Your task to perform on an android device: Go to Reddit.com Image 0: 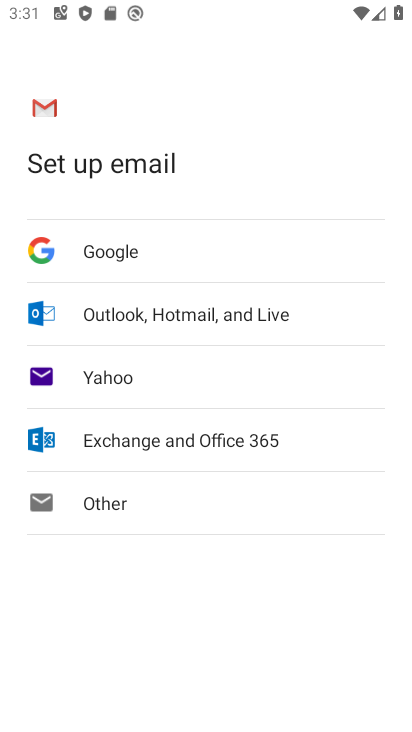
Step 0: press home button
Your task to perform on an android device: Go to Reddit.com Image 1: 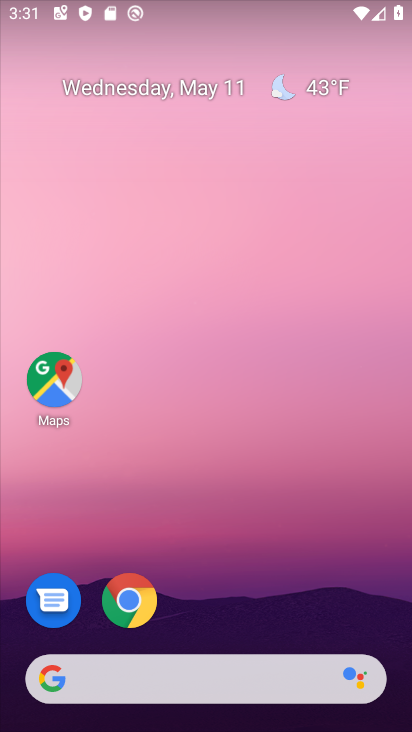
Step 1: click (143, 603)
Your task to perform on an android device: Go to Reddit.com Image 2: 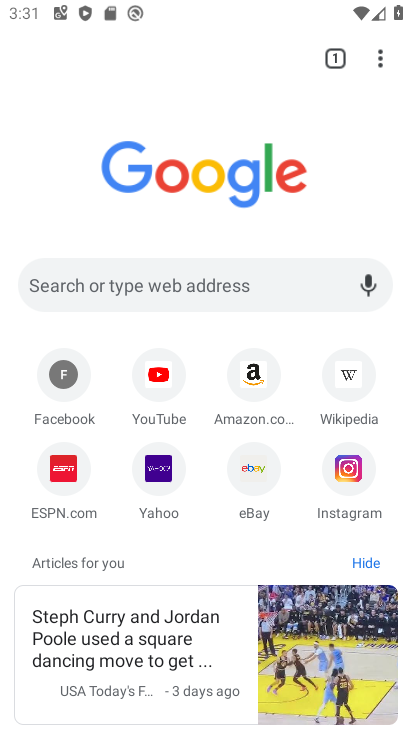
Step 2: click (110, 285)
Your task to perform on an android device: Go to Reddit.com Image 3: 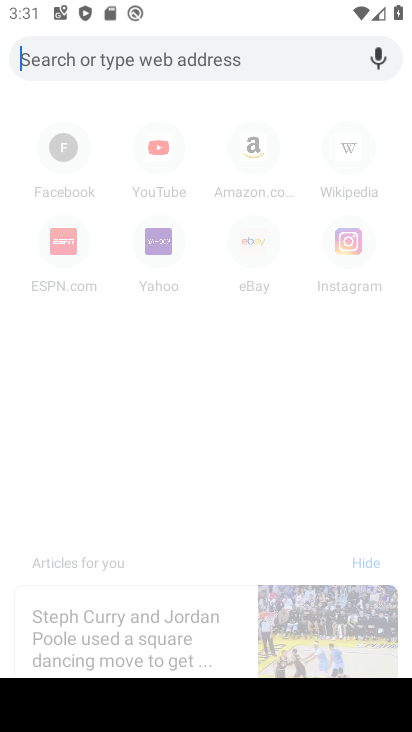
Step 3: type "reddit.com"
Your task to perform on an android device: Go to Reddit.com Image 4: 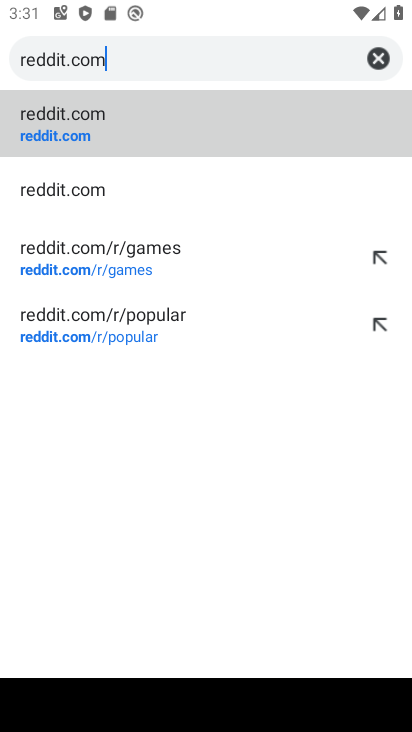
Step 4: click (71, 134)
Your task to perform on an android device: Go to Reddit.com Image 5: 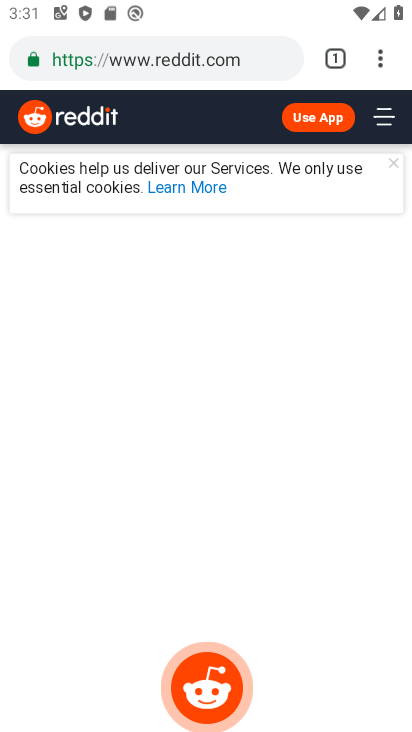
Step 5: task complete